Your task to perform on an android device: turn notification dots on Image 0: 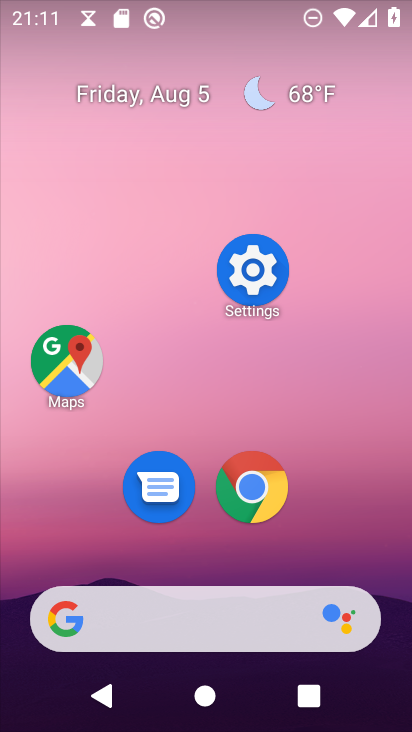
Step 0: click (248, 269)
Your task to perform on an android device: turn notification dots on Image 1: 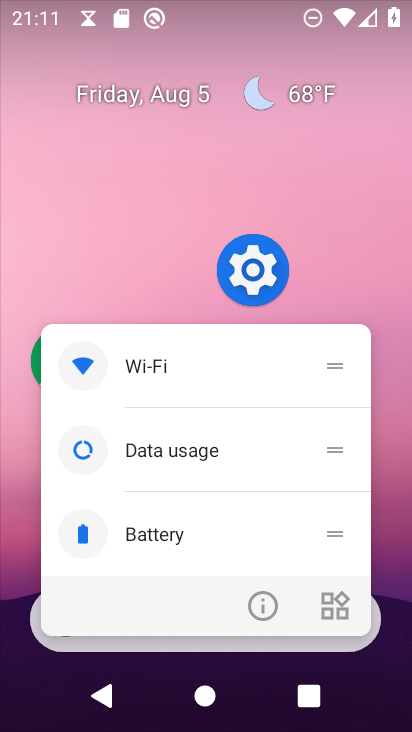
Step 1: click (250, 268)
Your task to perform on an android device: turn notification dots on Image 2: 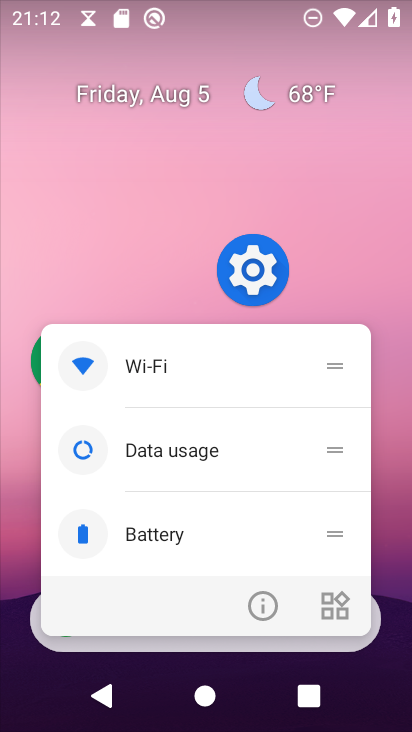
Step 2: click (250, 266)
Your task to perform on an android device: turn notification dots on Image 3: 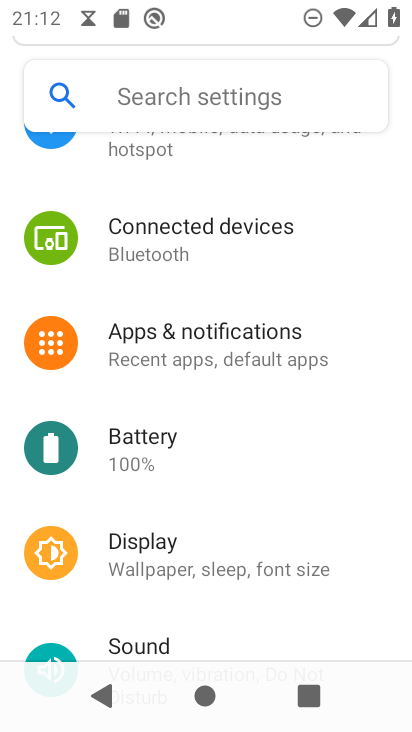
Step 3: click (197, 346)
Your task to perform on an android device: turn notification dots on Image 4: 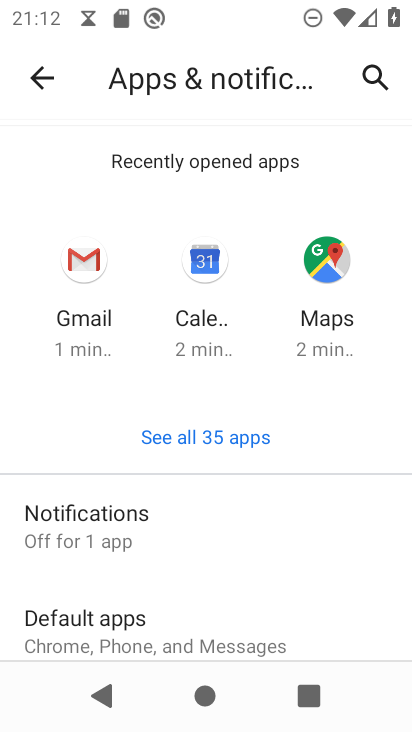
Step 4: click (106, 527)
Your task to perform on an android device: turn notification dots on Image 5: 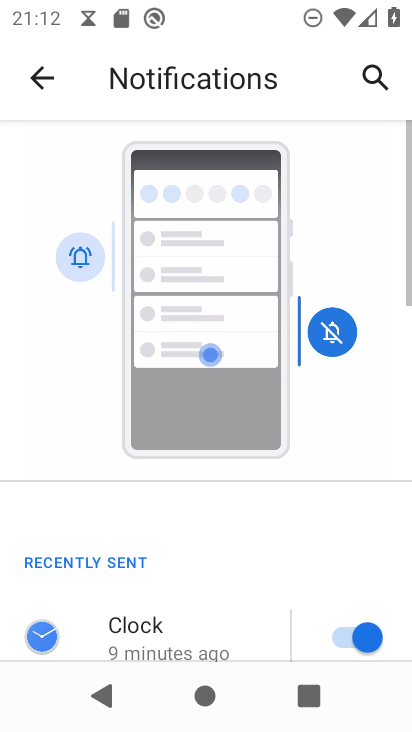
Step 5: drag from (200, 584) to (259, 223)
Your task to perform on an android device: turn notification dots on Image 6: 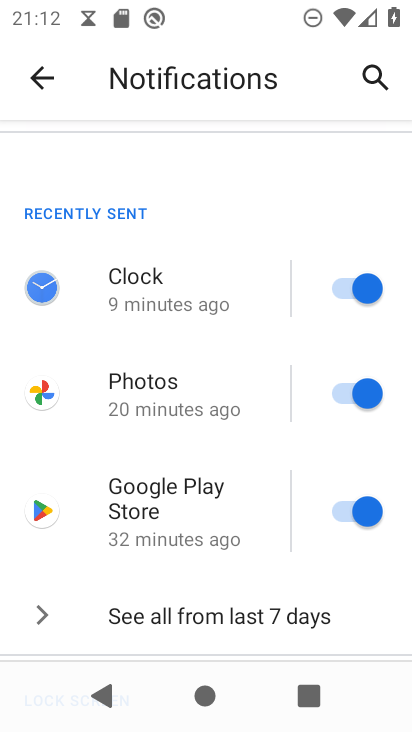
Step 6: drag from (239, 586) to (278, 114)
Your task to perform on an android device: turn notification dots on Image 7: 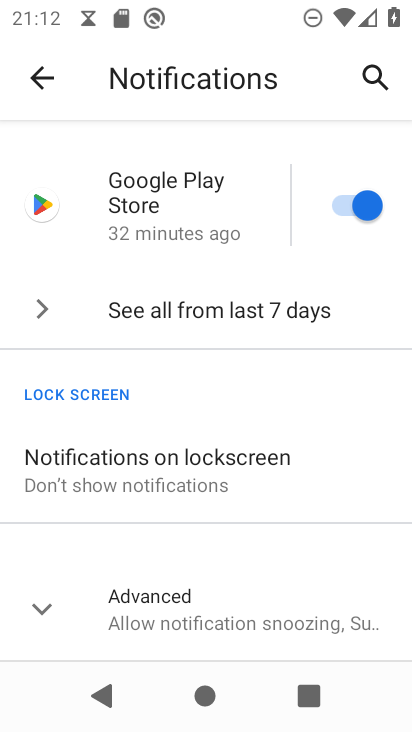
Step 7: click (163, 595)
Your task to perform on an android device: turn notification dots on Image 8: 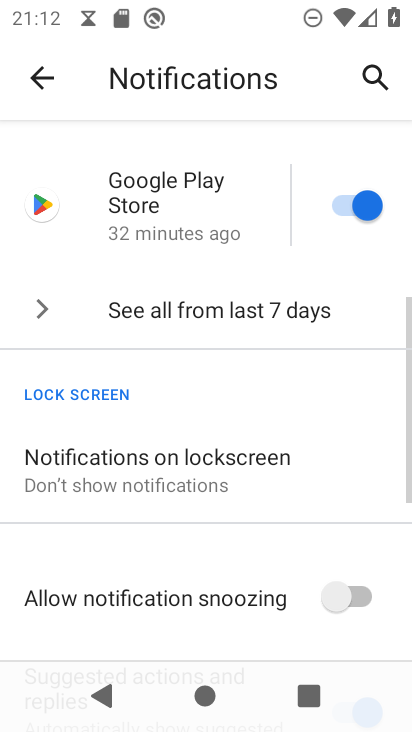
Step 8: task complete